Your task to perform on an android device: Open Google Chrome Image 0: 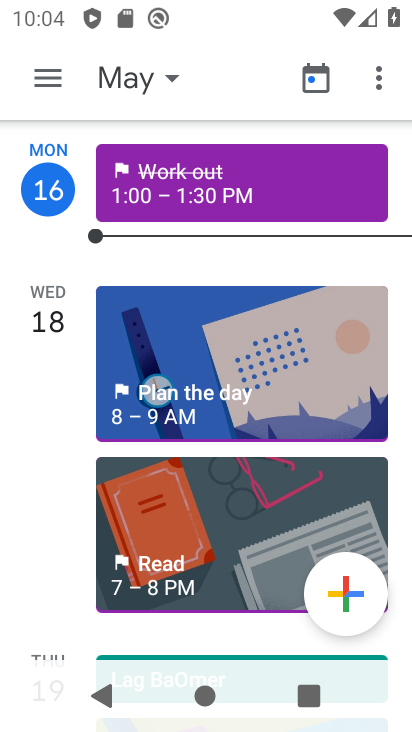
Step 0: press home button
Your task to perform on an android device: Open Google Chrome Image 1: 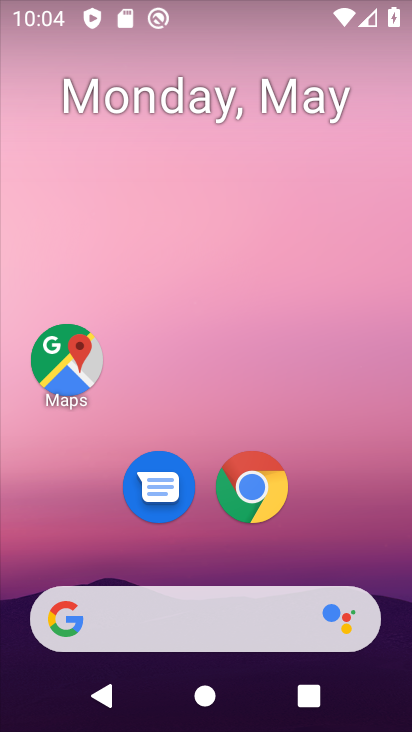
Step 1: click (257, 498)
Your task to perform on an android device: Open Google Chrome Image 2: 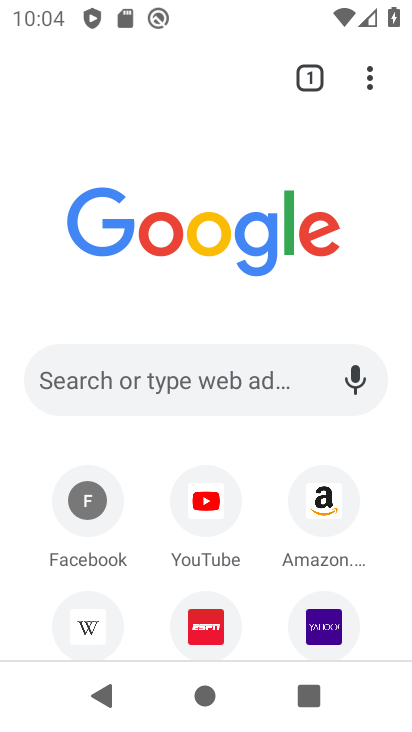
Step 2: task complete